Your task to perform on an android device: Go to accessibility settings Image 0: 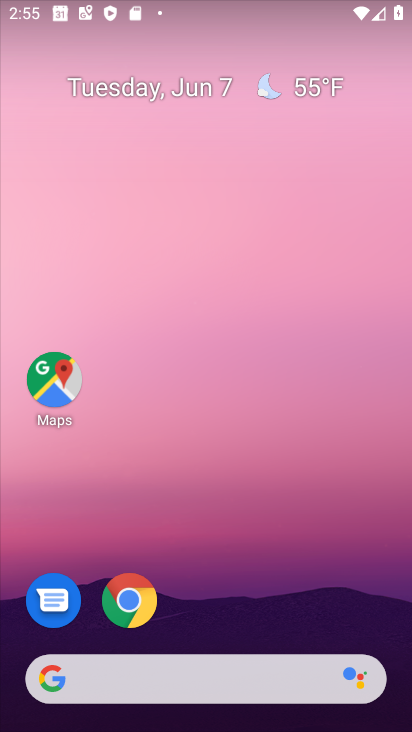
Step 0: drag from (247, 624) to (253, 290)
Your task to perform on an android device: Go to accessibility settings Image 1: 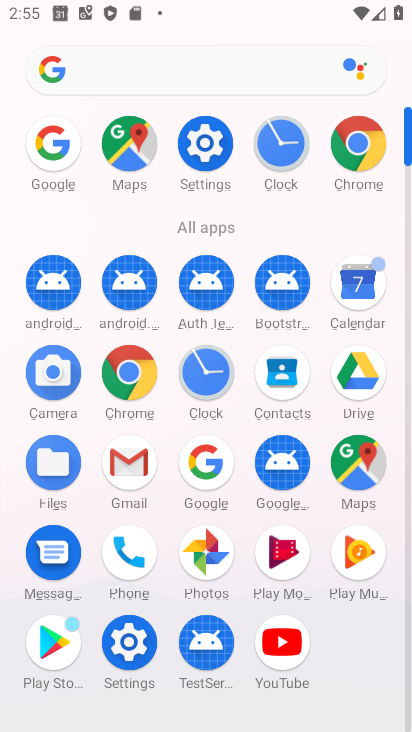
Step 1: click (200, 154)
Your task to perform on an android device: Go to accessibility settings Image 2: 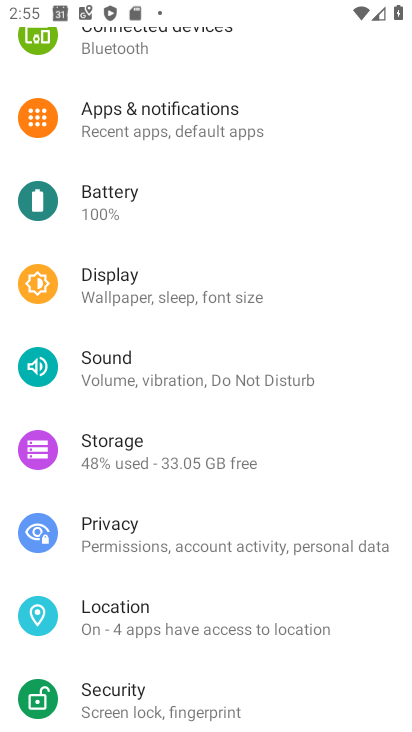
Step 2: drag from (167, 653) to (161, 463)
Your task to perform on an android device: Go to accessibility settings Image 3: 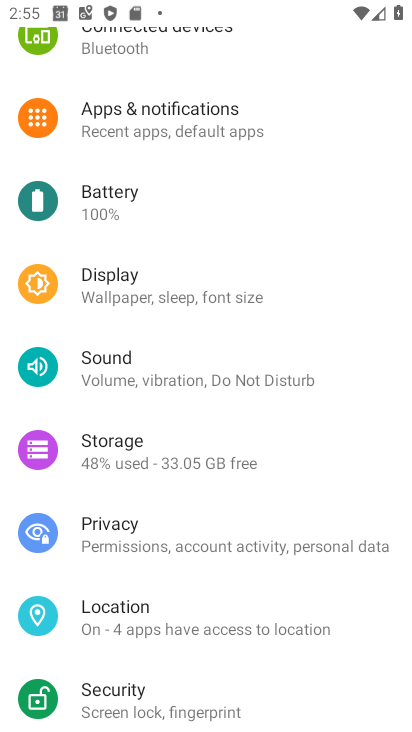
Step 3: drag from (187, 662) to (236, 407)
Your task to perform on an android device: Go to accessibility settings Image 4: 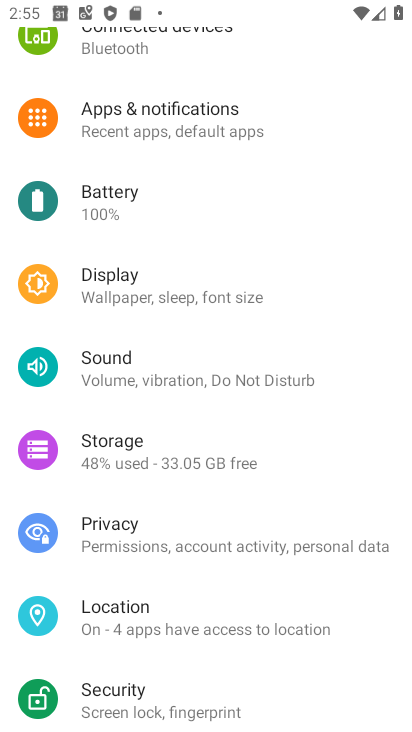
Step 4: drag from (156, 642) to (218, 401)
Your task to perform on an android device: Go to accessibility settings Image 5: 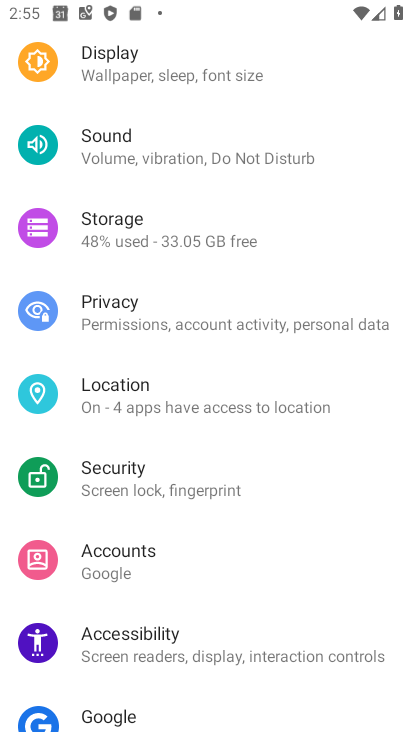
Step 5: click (189, 659)
Your task to perform on an android device: Go to accessibility settings Image 6: 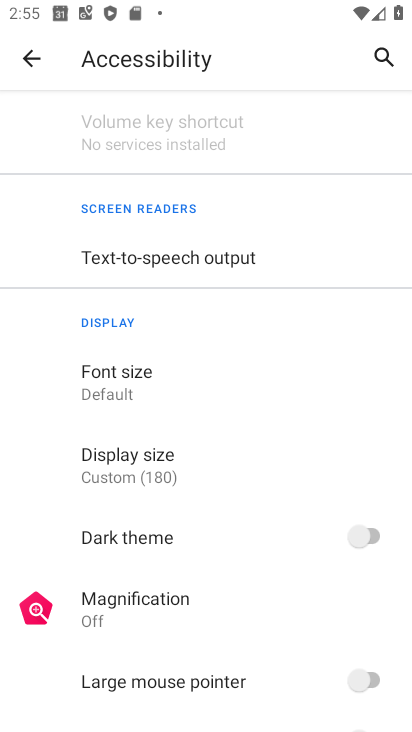
Step 6: task complete